Your task to perform on an android device: turn off notifications in google photos Image 0: 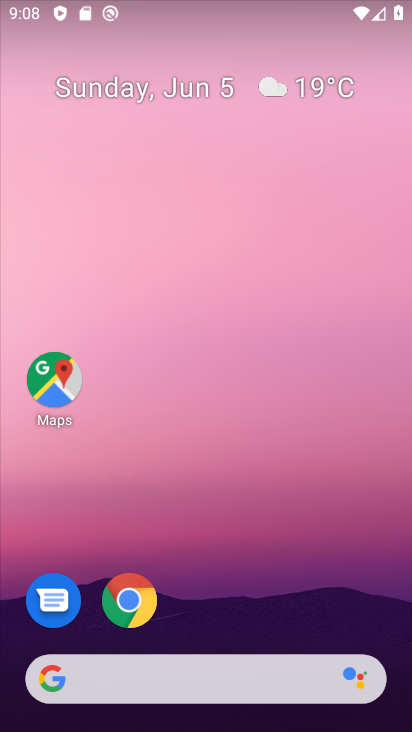
Step 0: task complete